Your task to perform on an android device: open sync settings in chrome Image 0: 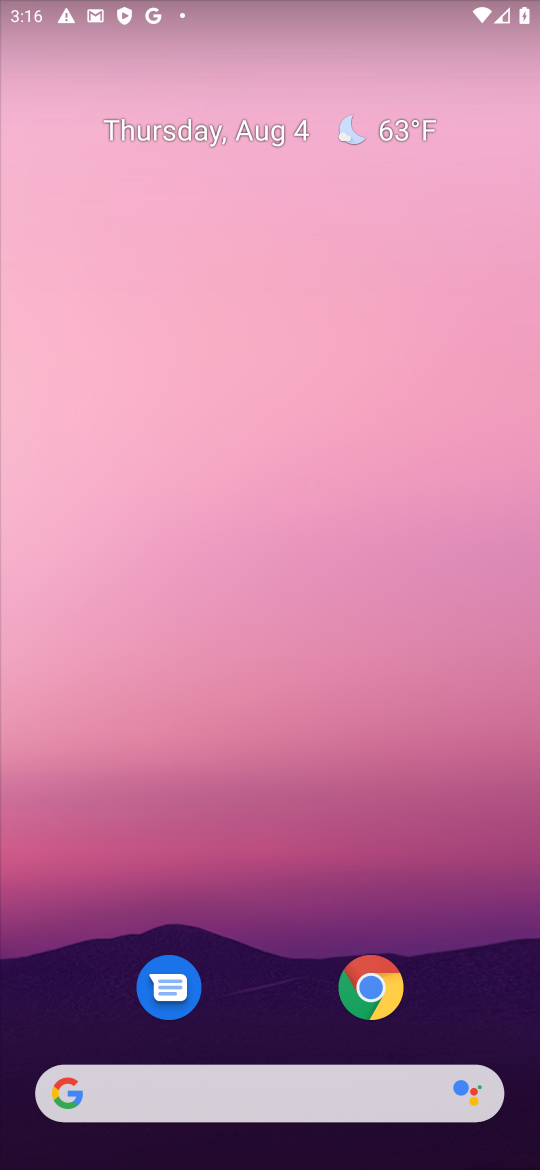
Step 0: click (380, 993)
Your task to perform on an android device: open sync settings in chrome Image 1: 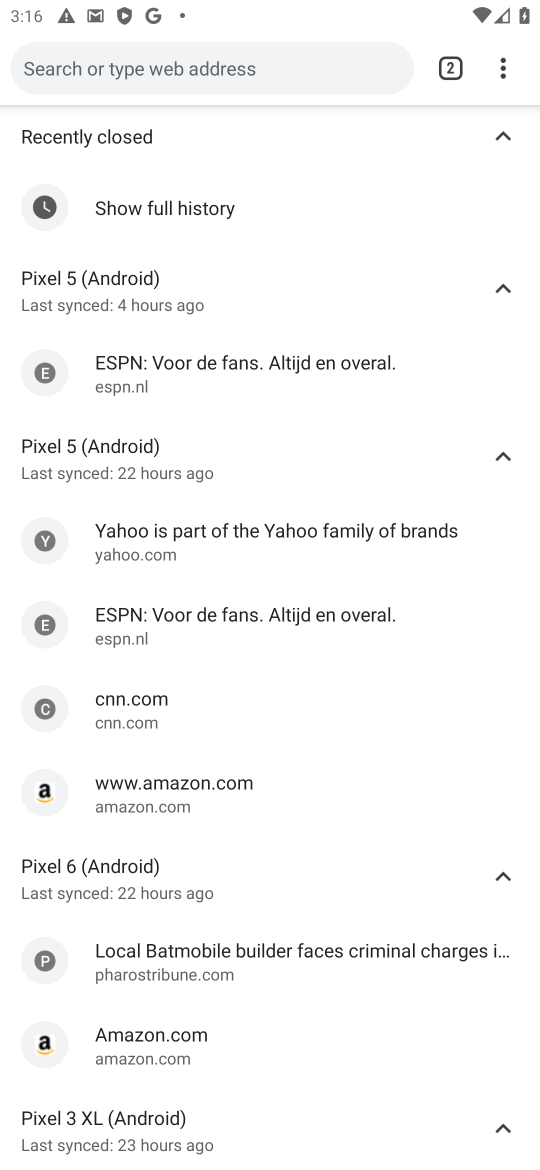
Step 1: click (500, 82)
Your task to perform on an android device: open sync settings in chrome Image 2: 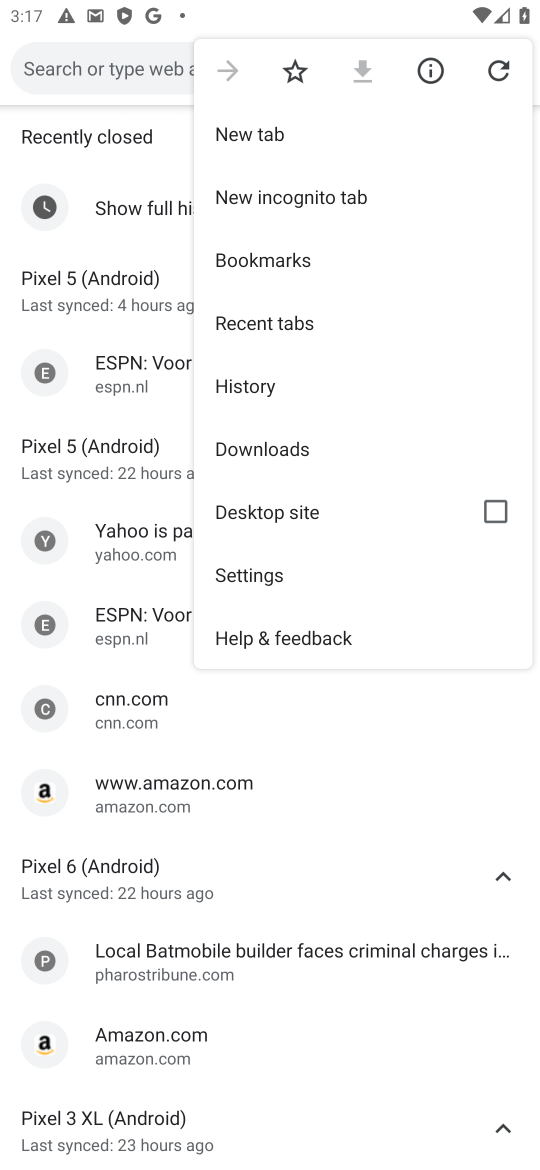
Step 2: click (247, 572)
Your task to perform on an android device: open sync settings in chrome Image 3: 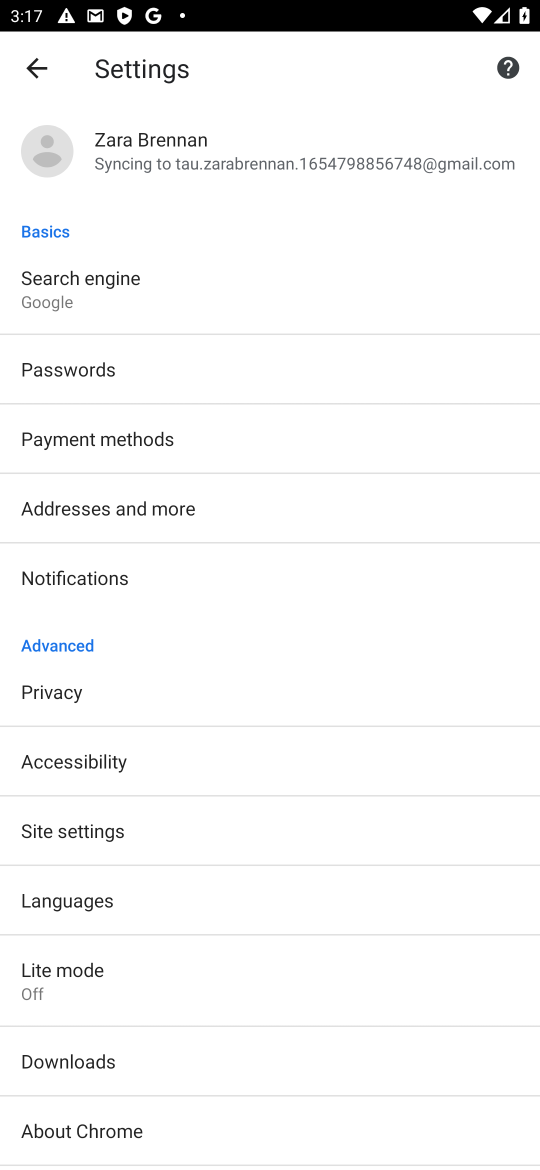
Step 3: click (251, 174)
Your task to perform on an android device: open sync settings in chrome Image 4: 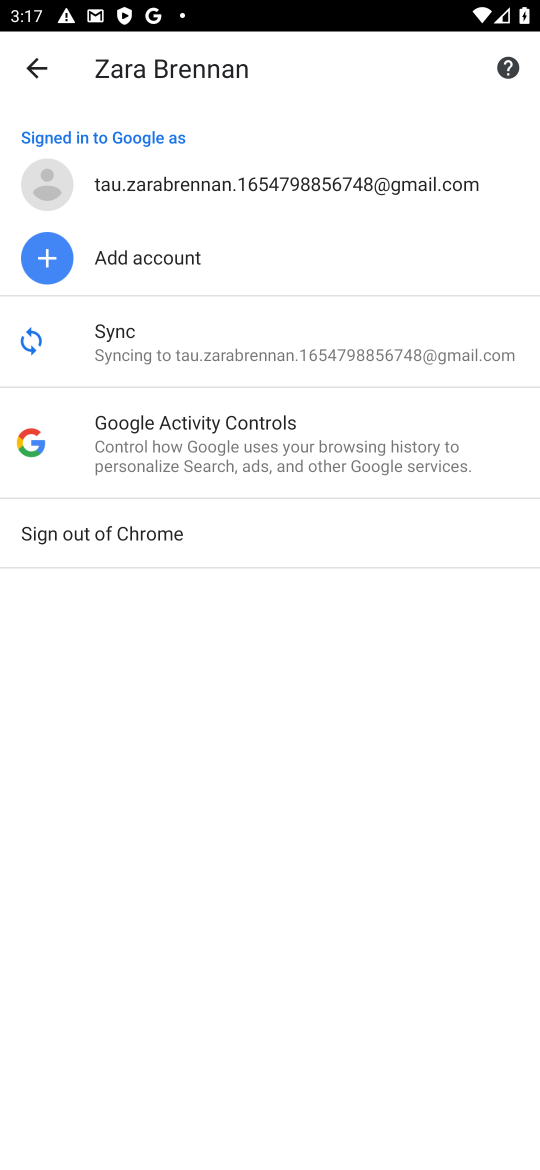
Step 4: click (113, 340)
Your task to perform on an android device: open sync settings in chrome Image 5: 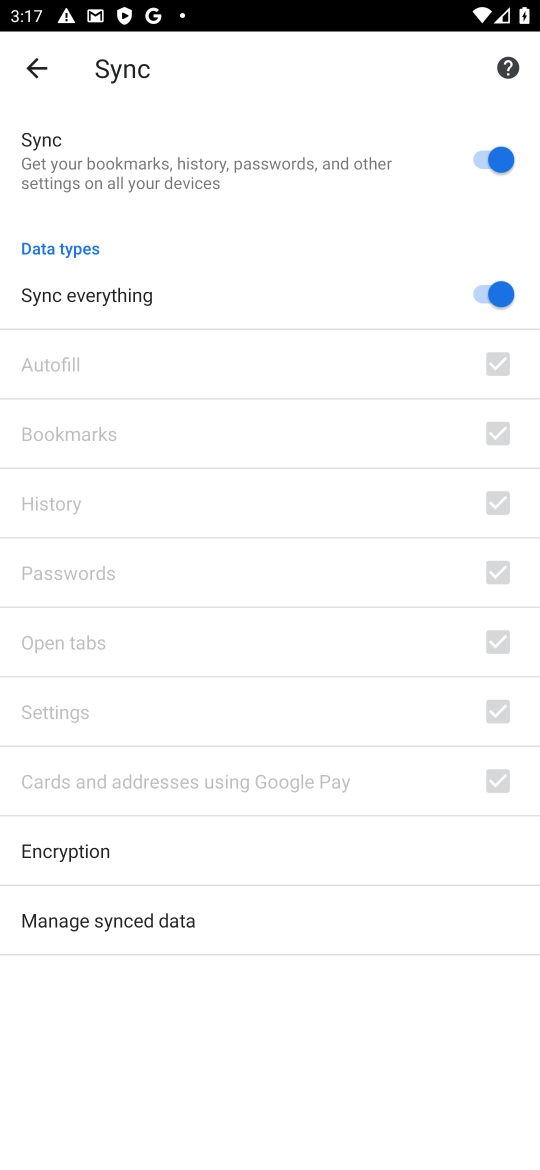
Step 5: task complete